Your task to perform on an android device: move a message to another label in the gmail app Image 0: 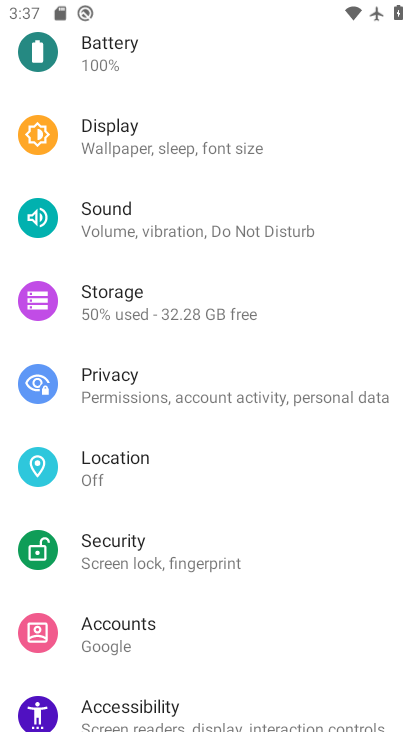
Step 0: press home button
Your task to perform on an android device: move a message to another label in the gmail app Image 1: 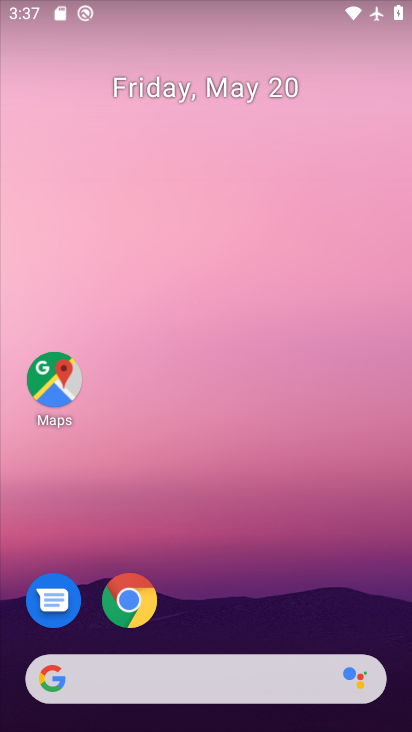
Step 1: drag from (275, 453) to (216, 84)
Your task to perform on an android device: move a message to another label in the gmail app Image 2: 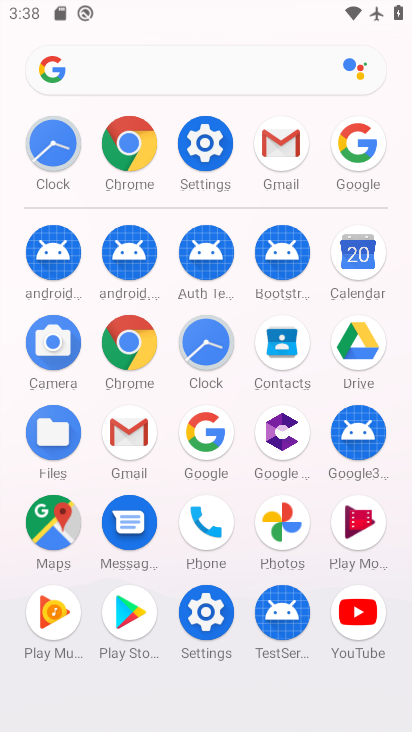
Step 2: click (139, 423)
Your task to perform on an android device: move a message to another label in the gmail app Image 3: 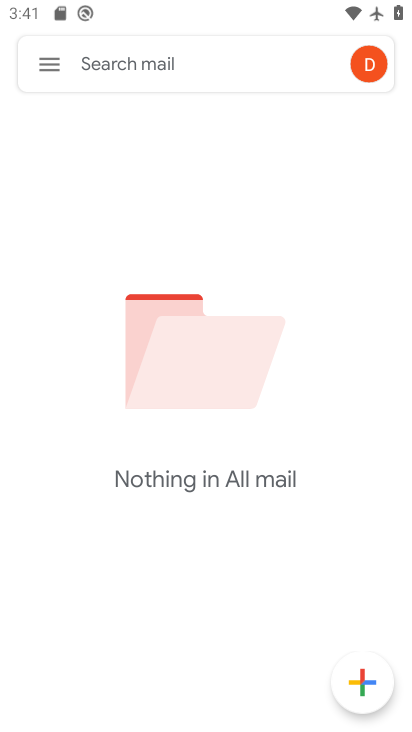
Step 3: task complete